Your task to perform on an android device: open the mobile data screen to see how much data has been used Image 0: 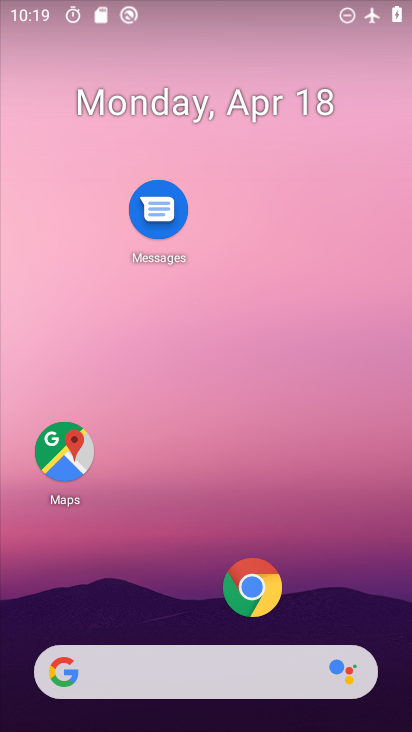
Step 0: drag from (195, 597) to (280, 15)
Your task to perform on an android device: open the mobile data screen to see how much data has been used Image 1: 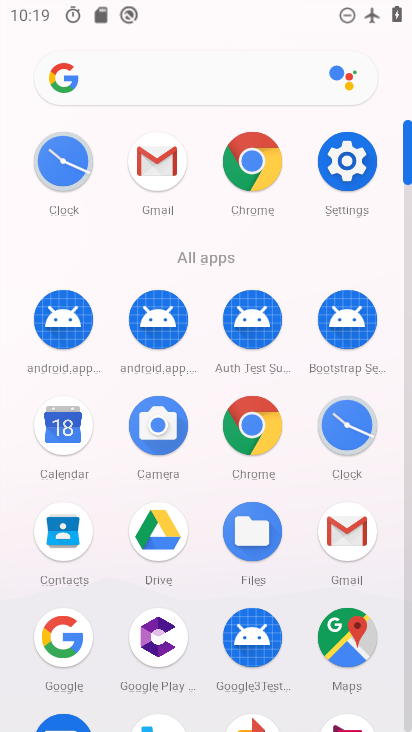
Step 1: click (342, 168)
Your task to perform on an android device: open the mobile data screen to see how much data has been used Image 2: 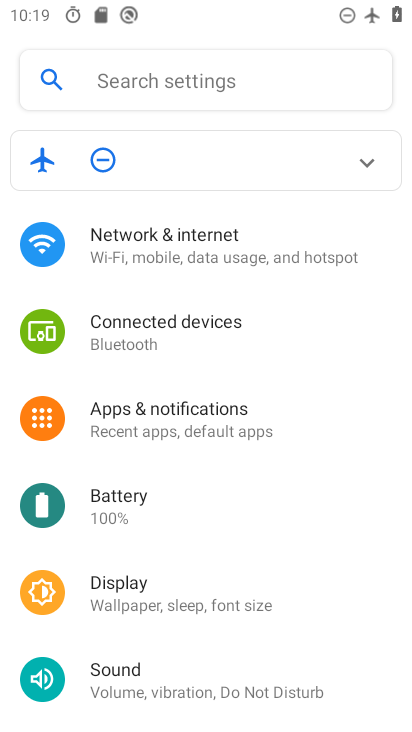
Step 2: click (183, 250)
Your task to perform on an android device: open the mobile data screen to see how much data has been used Image 3: 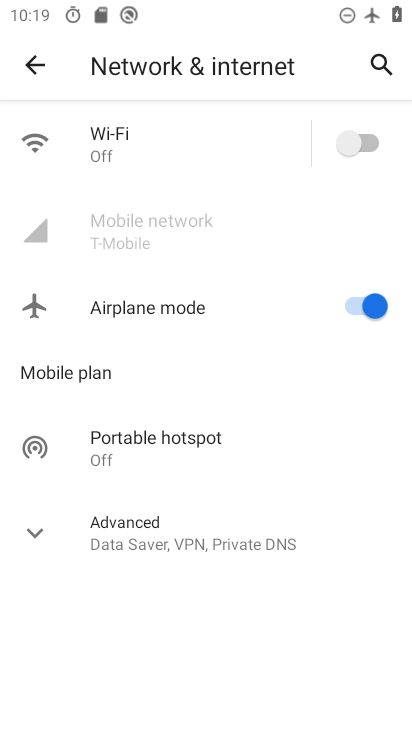
Step 3: click (344, 298)
Your task to perform on an android device: open the mobile data screen to see how much data has been used Image 4: 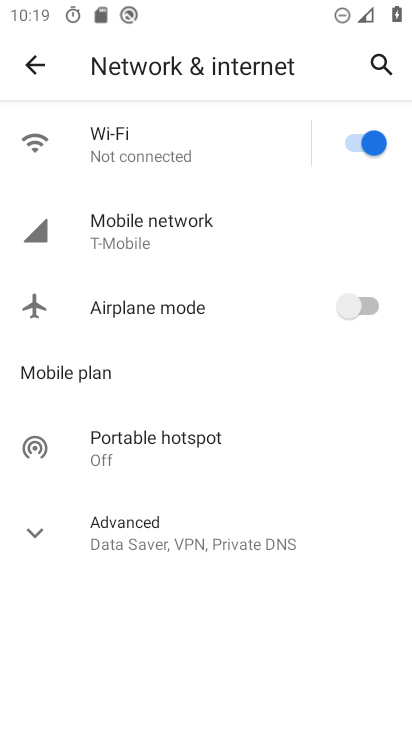
Step 4: click (174, 227)
Your task to perform on an android device: open the mobile data screen to see how much data has been used Image 5: 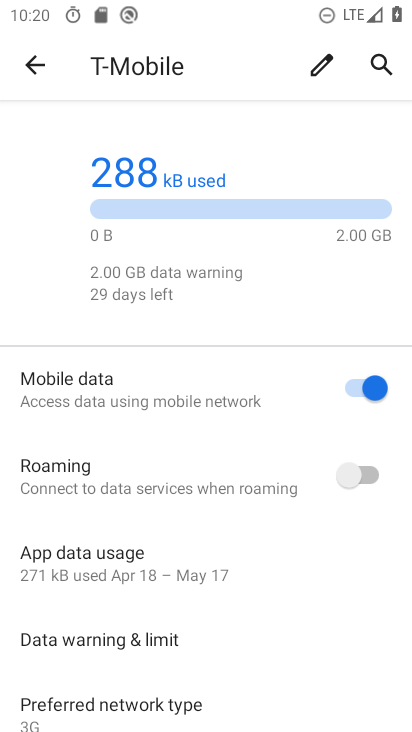
Step 5: click (162, 572)
Your task to perform on an android device: open the mobile data screen to see how much data has been used Image 6: 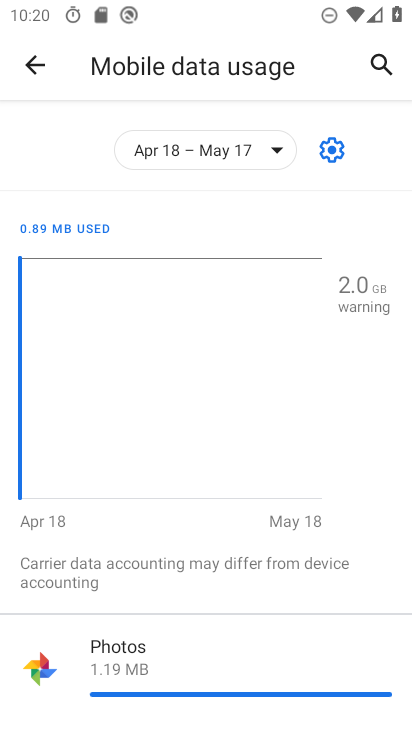
Step 6: task complete